Your task to perform on an android device: toggle sleep mode Image 0: 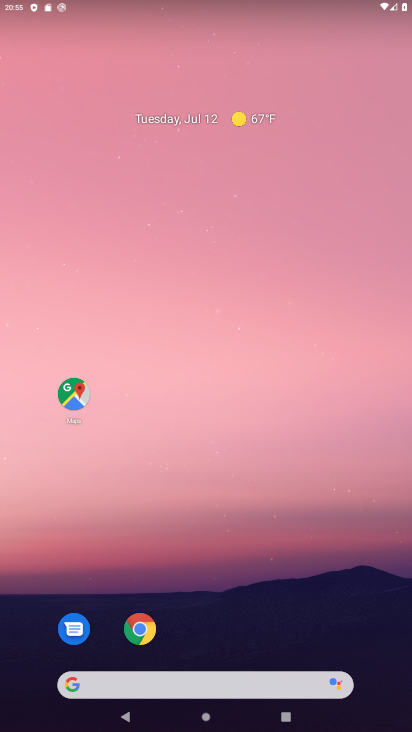
Step 0: drag from (238, 695) to (164, 19)
Your task to perform on an android device: toggle sleep mode Image 1: 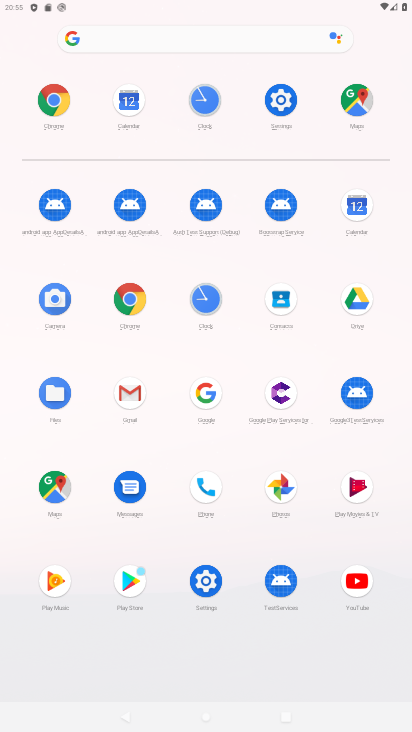
Step 1: click (274, 90)
Your task to perform on an android device: toggle sleep mode Image 2: 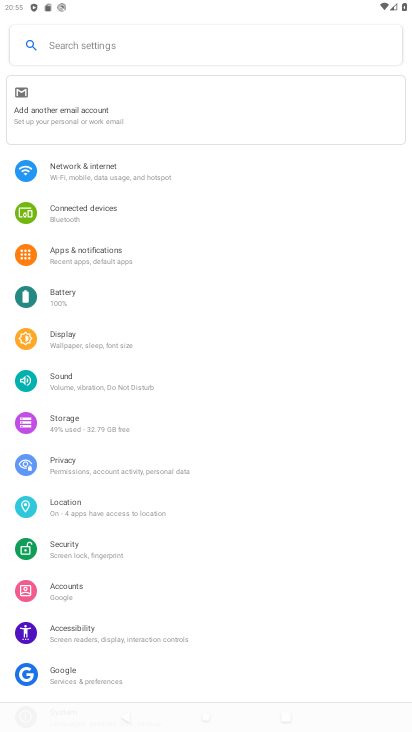
Step 2: click (100, 344)
Your task to perform on an android device: toggle sleep mode Image 3: 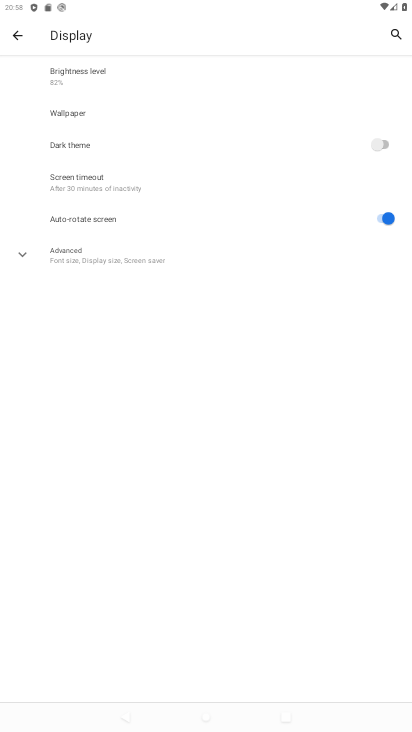
Step 3: task complete